Your task to perform on an android device: toggle wifi Image 0: 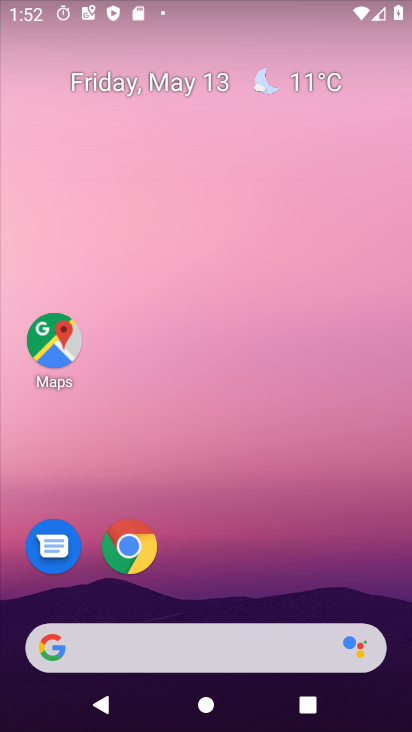
Step 0: drag from (217, 645) to (285, 183)
Your task to perform on an android device: toggle wifi Image 1: 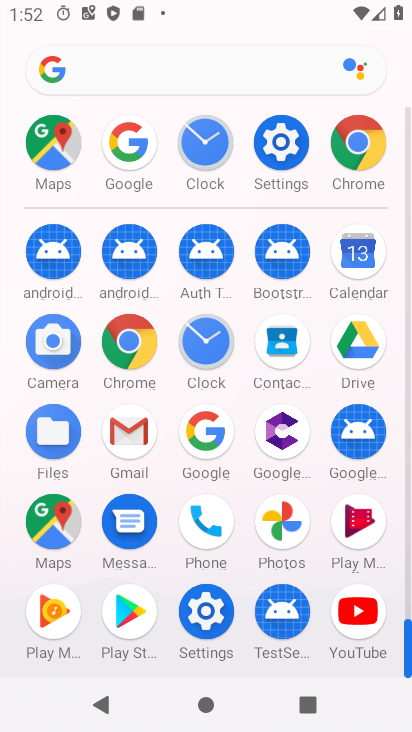
Step 1: click (291, 162)
Your task to perform on an android device: toggle wifi Image 2: 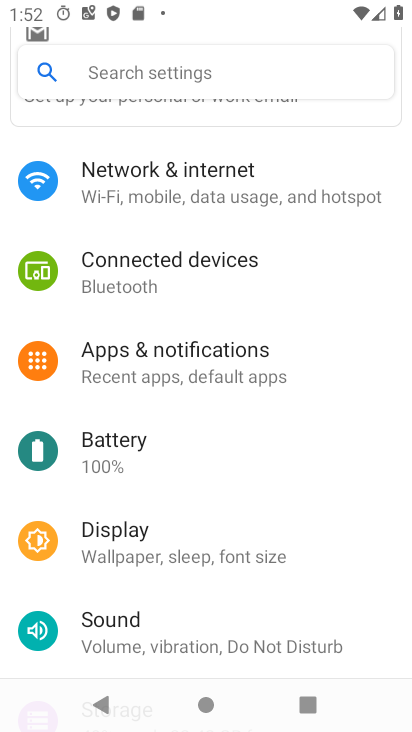
Step 2: drag from (275, 270) to (243, 491)
Your task to perform on an android device: toggle wifi Image 3: 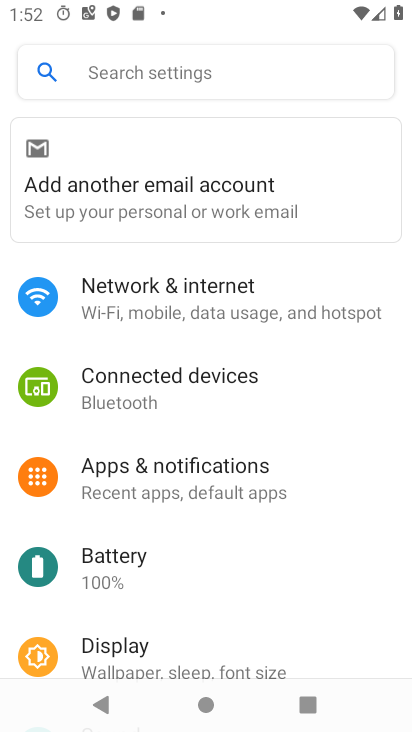
Step 3: click (270, 321)
Your task to perform on an android device: toggle wifi Image 4: 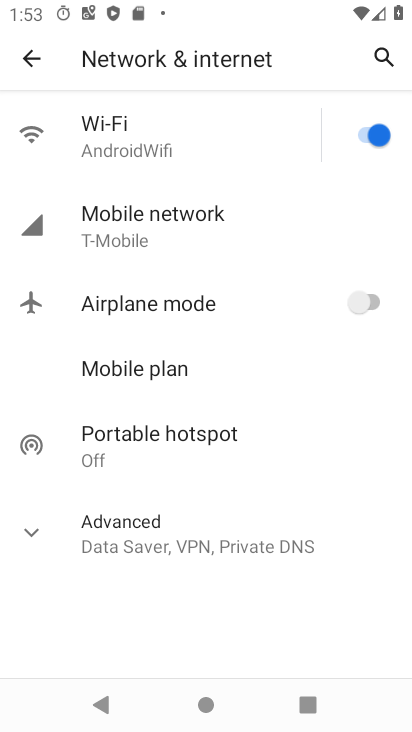
Step 4: click (348, 141)
Your task to perform on an android device: toggle wifi Image 5: 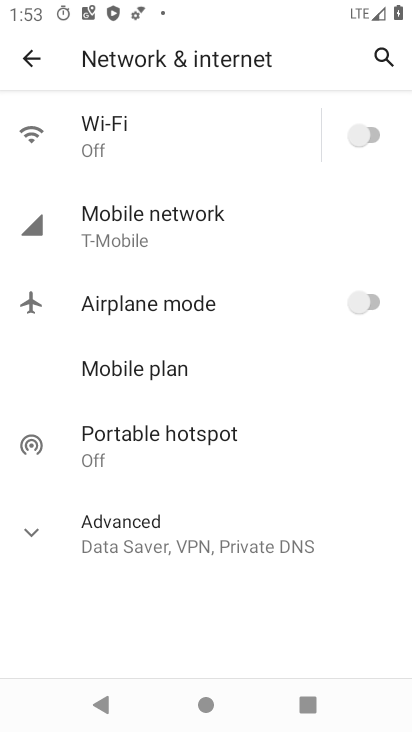
Step 5: task complete